Your task to perform on an android device: Go to location settings Image 0: 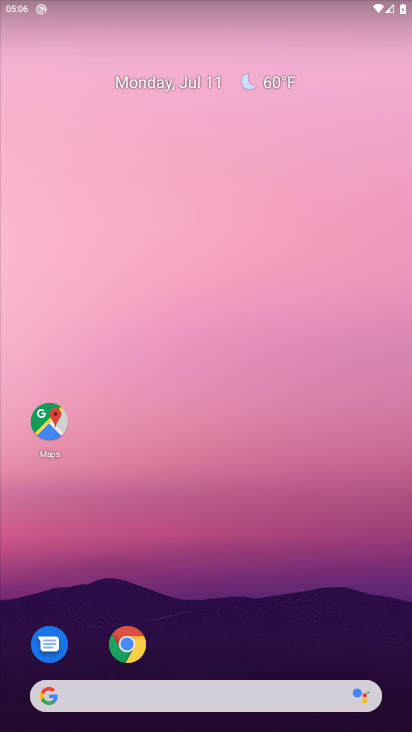
Step 0: drag from (218, 635) to (223, 399)
Your task to perform on an android device: Go to location settings Image 1: 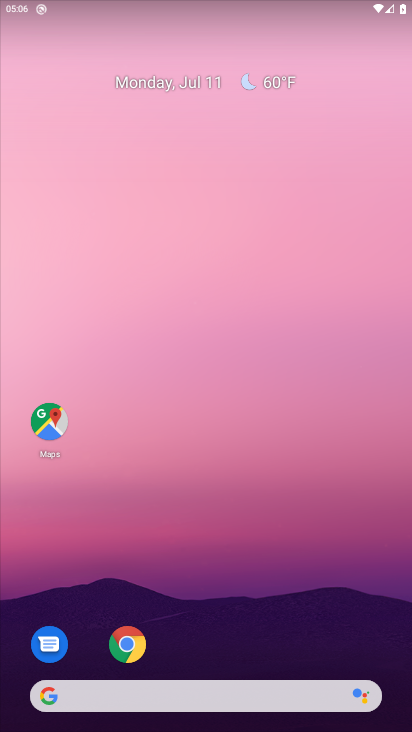
Step 1: drag from (210, 478) to (216, 275)
Your task to perform on an android device: Go to location settings Image 2: 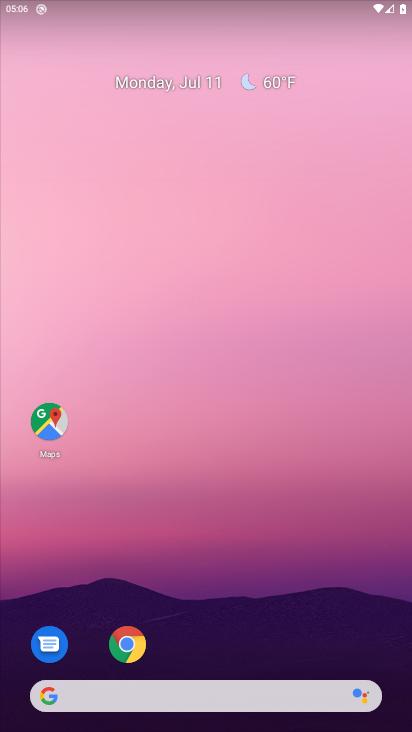
Step 2: drag from (299, 694) to (284, 265)
Your task to perform on an android device: Go to location settings Image 3: 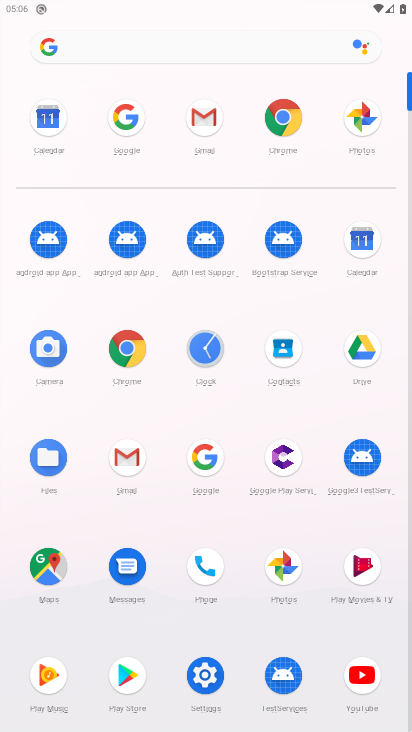
Step 3: click (200, 668)
Your task to perform on an android device: Go to location settings Image 4: 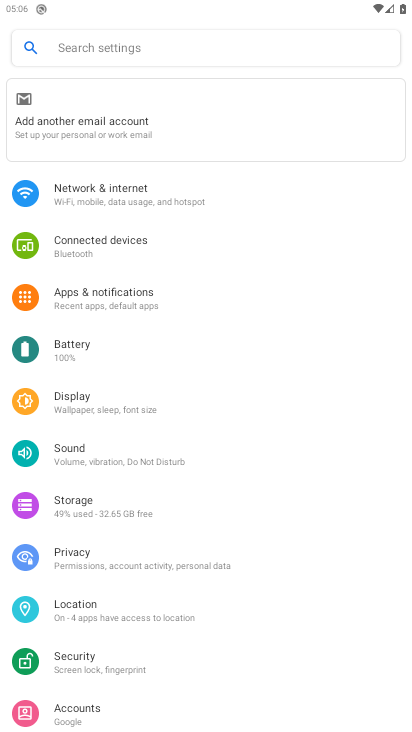
Step 4: click (123, 614)
Your task to perform on an android device: Go to location settings Image 5: 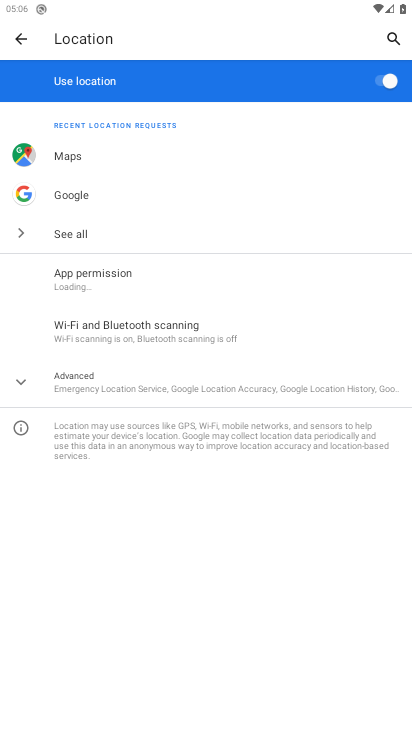
Step 5: click (90, 379)
Your task to perform on an android device: Go to location settings Image 6: 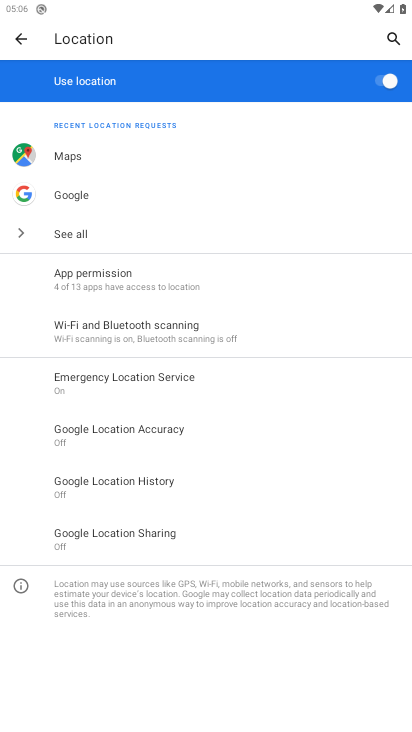
Step 6: task complete